Your task to perform on an android device: Show the shopping cart on walmart.com. Add alienware area 51 to the cart on walmart.com, then select checkout. Image 0: 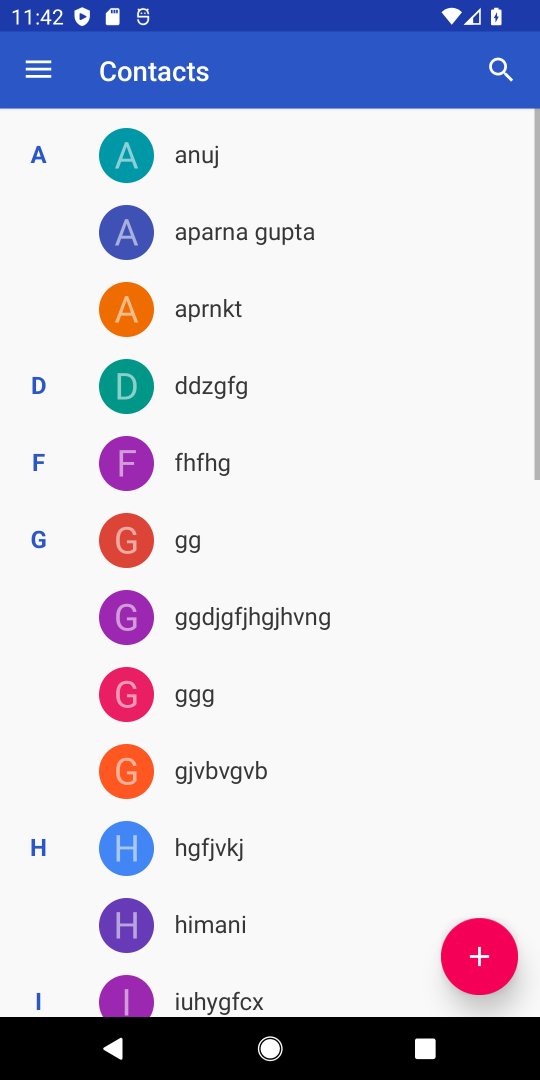
Step 0: press home button
Your task to perform on an android device: Show the shopping cart on walmart.com. Add alienware area 51 to the cart on walmart.com, then select checkout. Image 1: 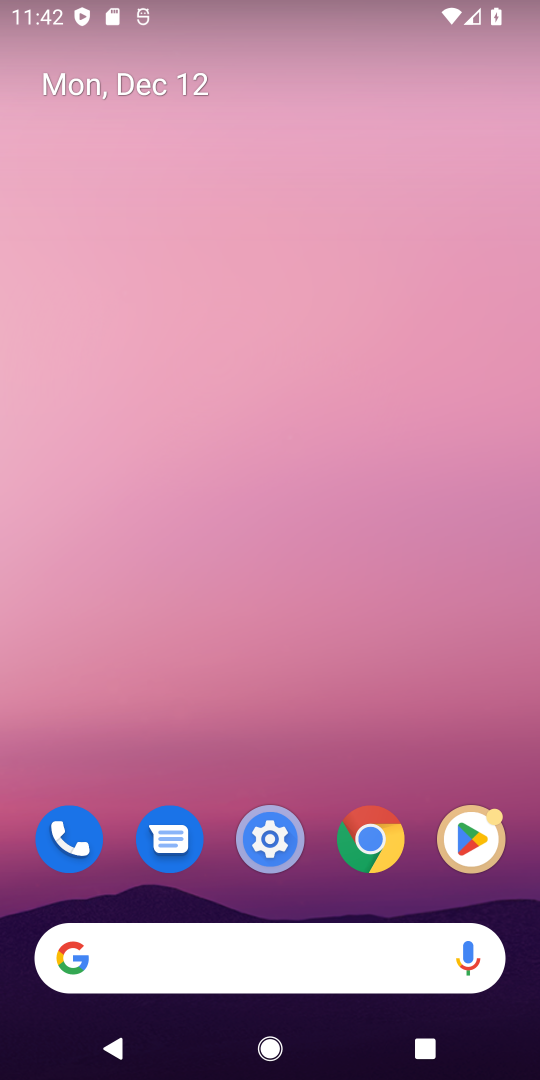
Step 1: click (372, 839)
Your task to perform on an android device: Show the shopping cart on walmart.com. Add alienware area 51 to the cart on walmart.com, then select checkout. Image 2: 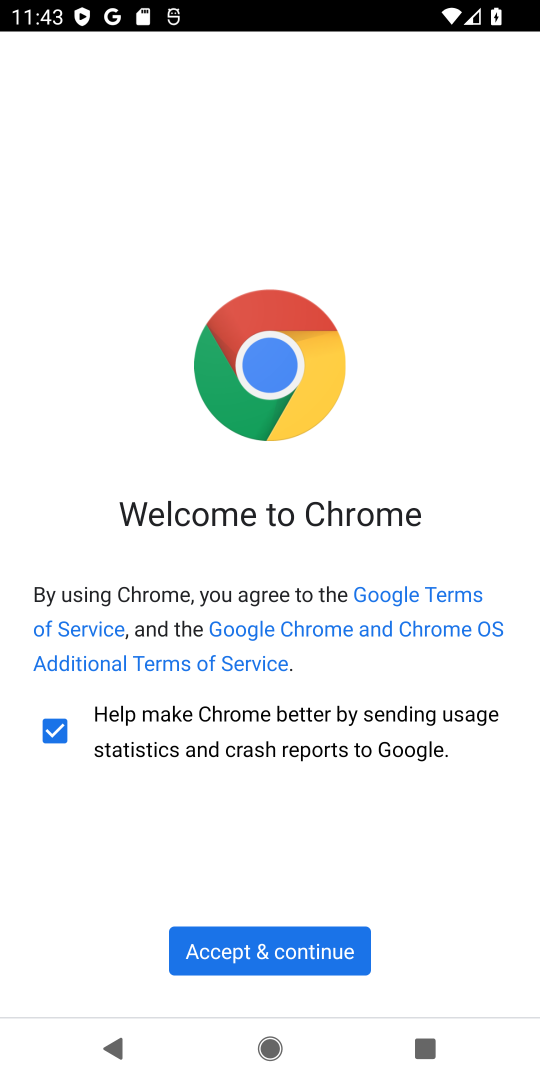
Step 2: click (230, 945)
Your task to perform on an android device: Show the shopping cart on walmart.com. Add alienware area 51 to the cart on walmart.com, then select checkout. Image 3: 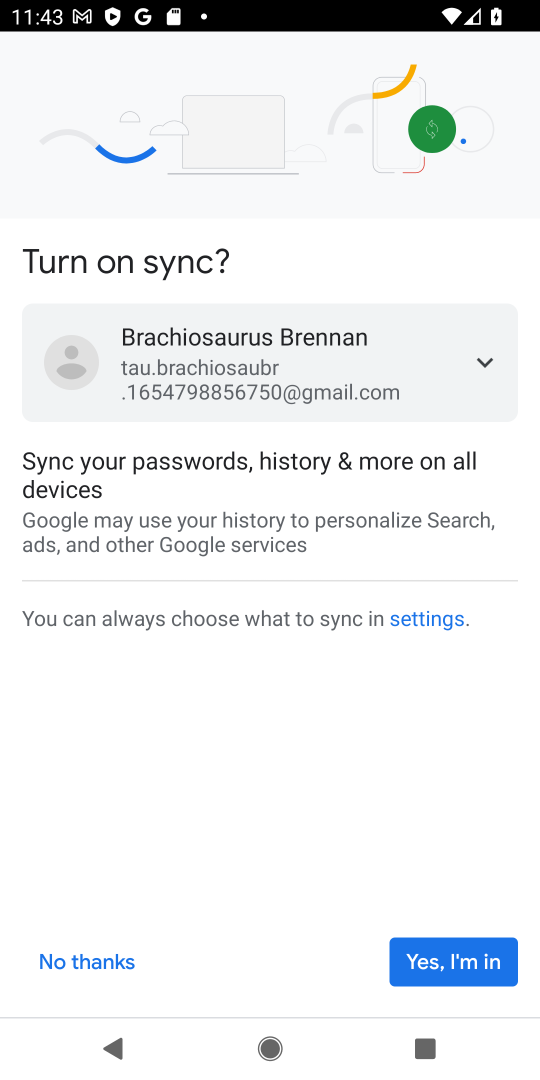
Step 3: click (440, 965)
Your task to perform on an android device: Show the shopping cart on walmart.com. Add alienware area 51 to the cart on walmart.com, then select checkout. Image 4: 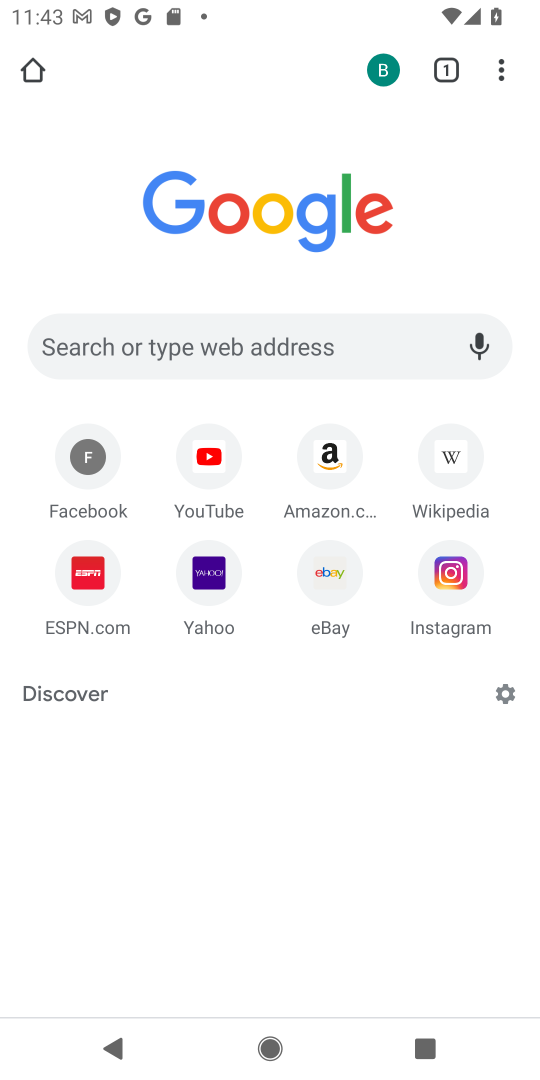
Step 4: click (224, 339)
Your task to perform on an android device: Show the shopping cart on walmart.com. Add alienware area 51 to the cart on walmart.com, then select checkout. Image 5: 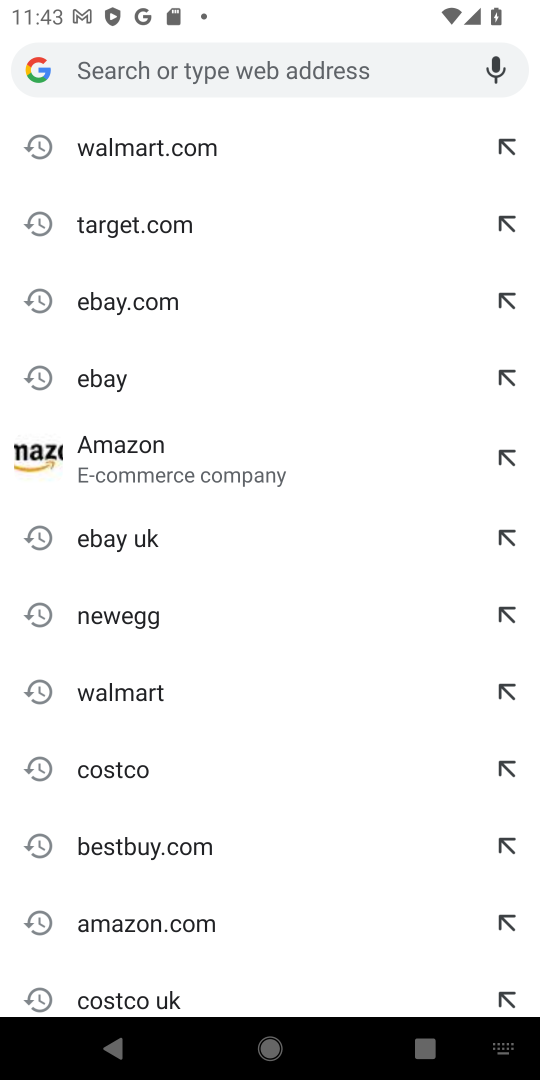
Step 5: type "walmart.com"
Your task to perform on an android device: Show the shopping cart on walmart.com. Add alienware area 51 to the cart on walmart.com, then select checkout. Image 6: 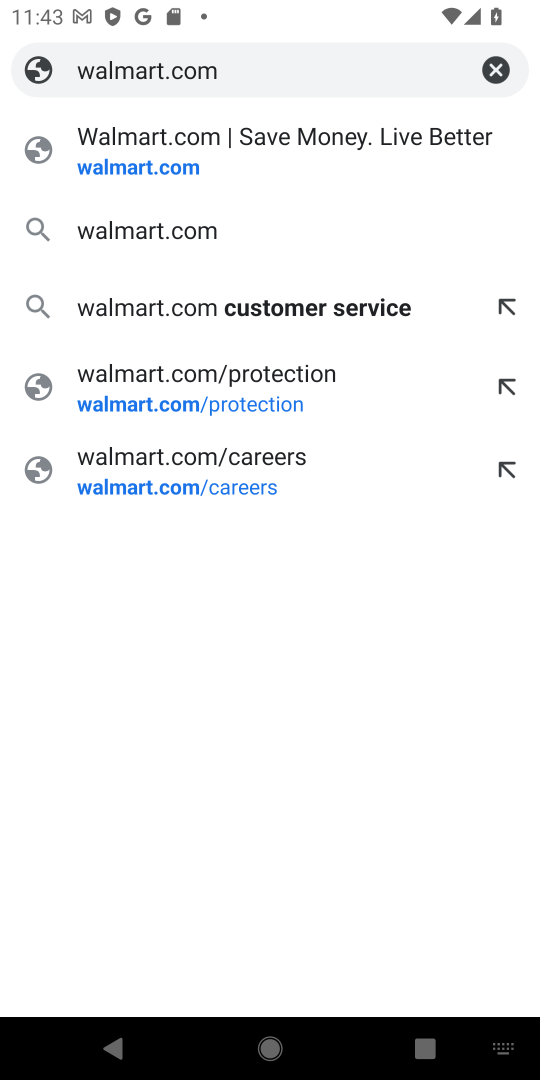
Step 6: click (154, 235)
Your task to perform on an android device: Show the shopping cart on walmart.com. Add alienware area 51 to the cart on walmart.com, then select checkout. Image 7: 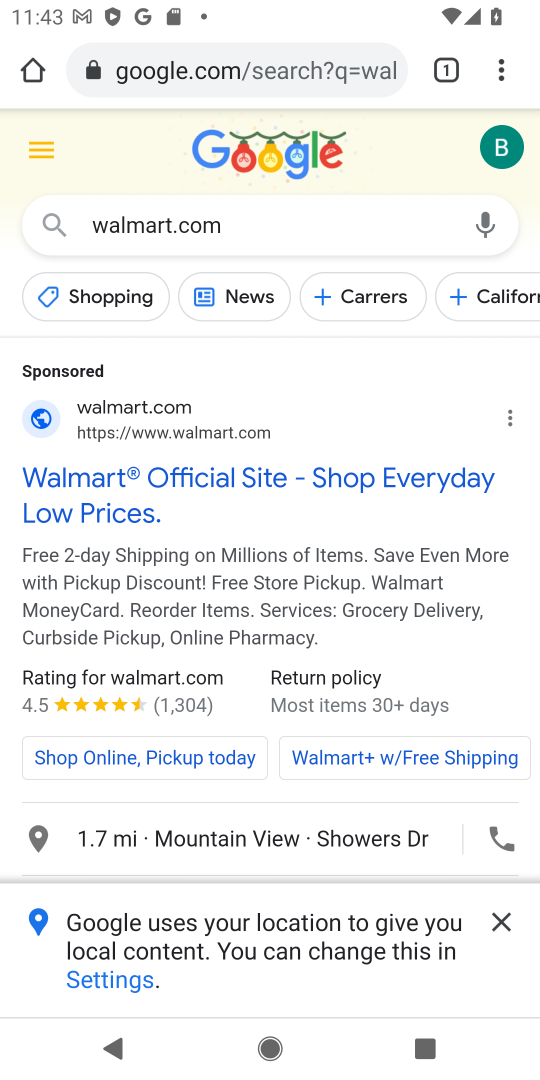
Step 7: drag from (249, 649) to (397, 269)
Your task to perform on an android device: Show the shopping cart on walmart.com. Add alienware area 51 to the cart on walmart.com, then select checkout. Image 8: 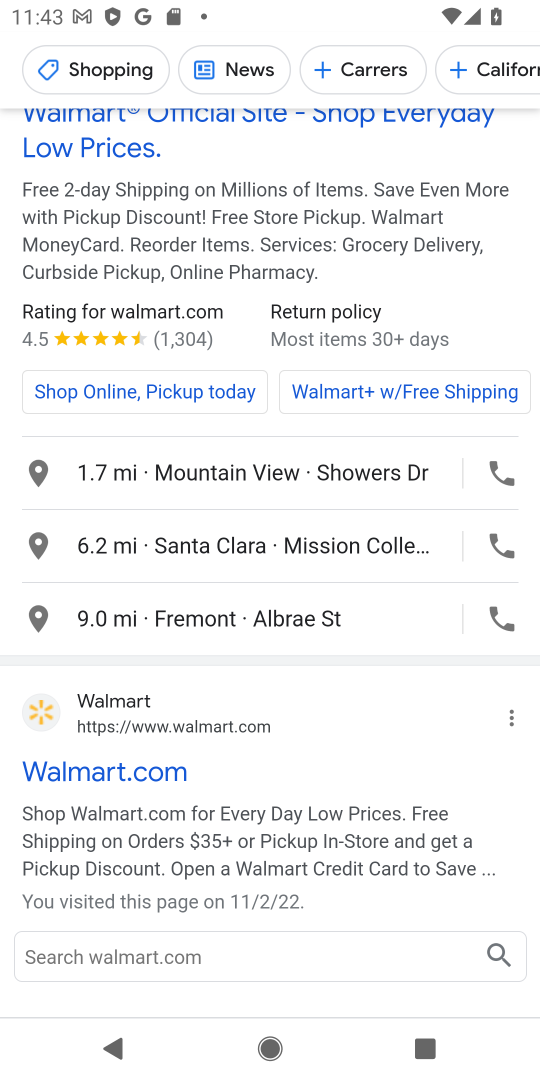
Step 8: click (126, 761)
Your task to perform on an android device: Show the shopping cart on walmart.com. Add alienware area 51 to the cart on walmart.com, then select checkout. Image 9: 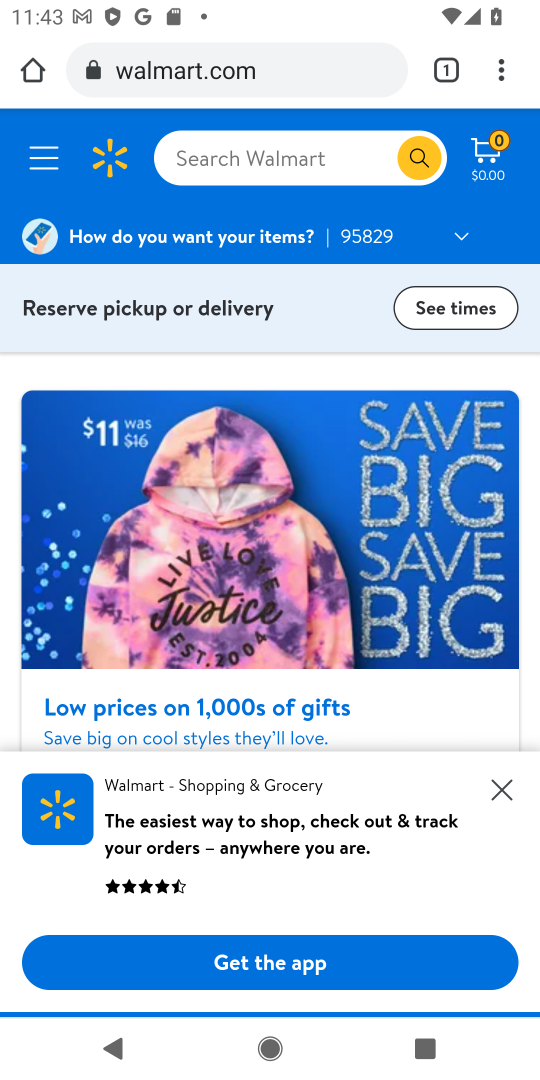
Step 9: click (486, 151)
Your task to perform on an android device: Show the shopping cart on walmart.com. Add alienware area 51 to the cart on walmart.com, then select checkout. Image 10: 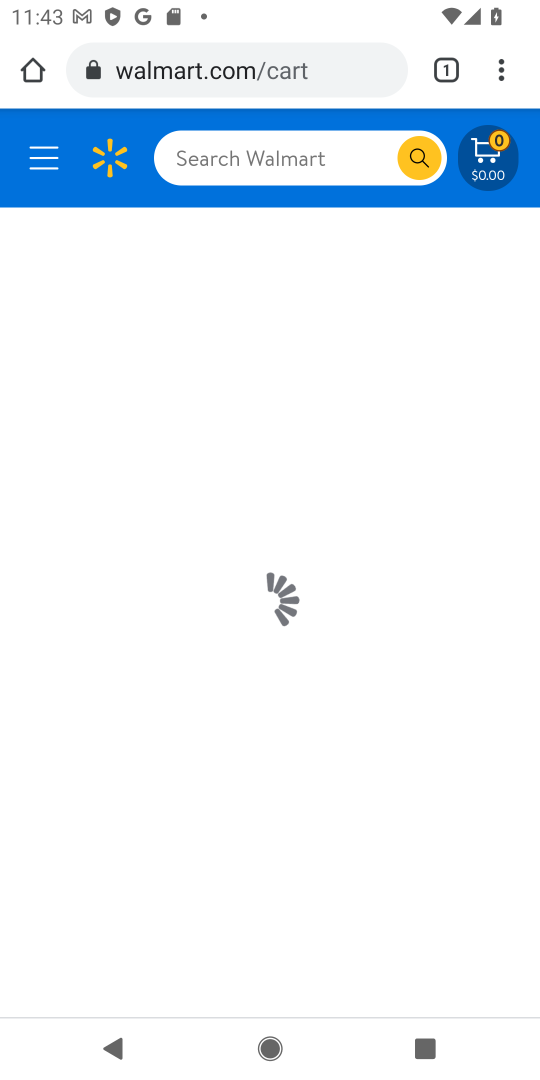
Step 10: click (305, 160)
Your task to perform on an android device: Show the shopping cart on walmart.com. Add alienware area 51 to the cart on walmart.com, then select checkout. Image 11: 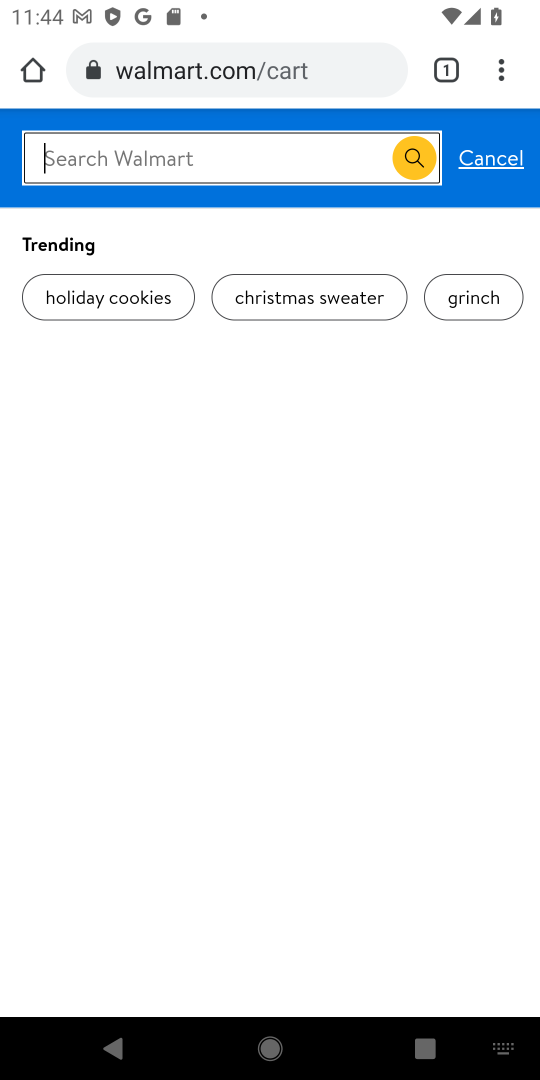
Step 11: type "alienware area 51"
Your task to perform on an android device: Show the shopping cart on walmart.com. Add alienware area 51 to the cart on walmart.com, then select checkout. Image 12: 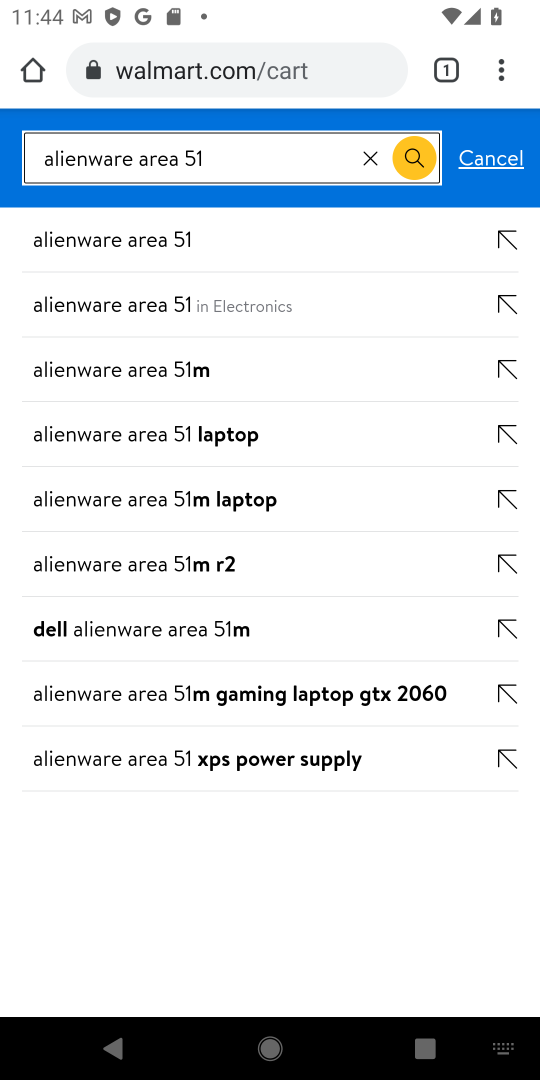
Step 12: click (146, 244)
Your task to perform on an android device: Show the shopping cart on walmart.com. Add alienware area 51 to the cart on walmart.com, then select checkout. Image 13: 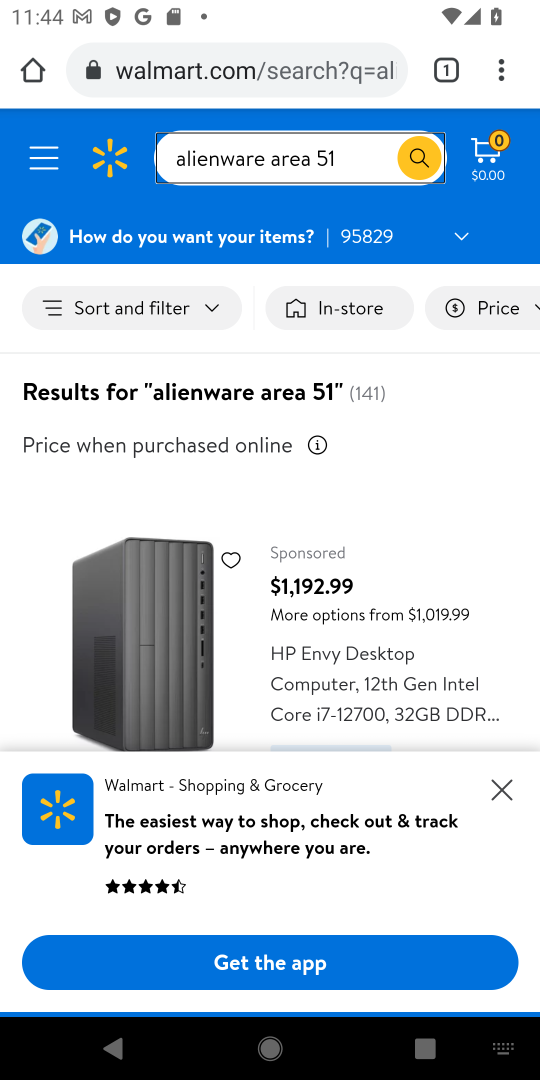
Step 13: click (374, 621)
Your task to perform on an android device: Show the shopping cart on walmart.com. Add alienware area 51 to the cart on walmart.com, then select checkout. Image 14: 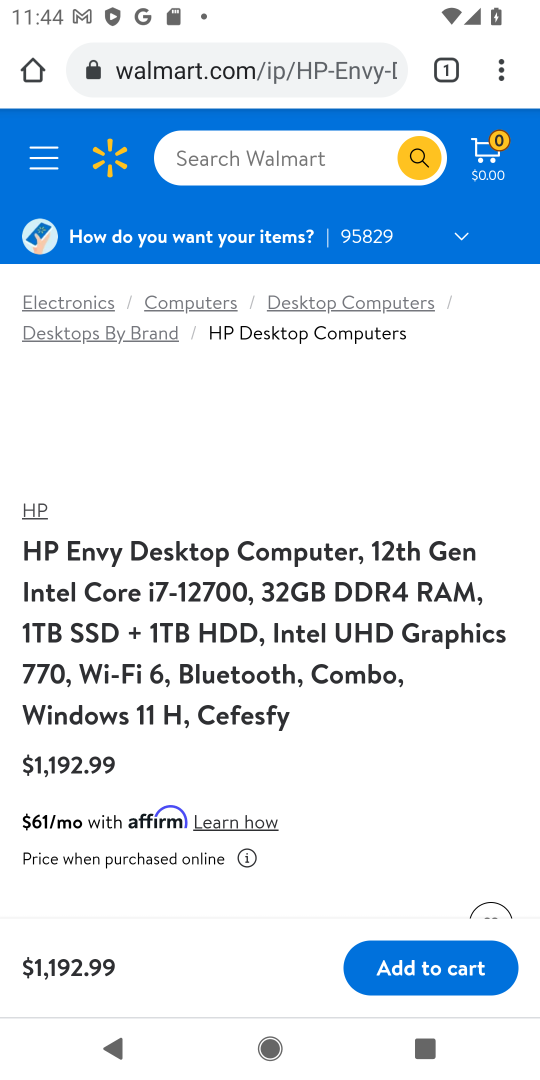
Step 14: click (418, 972)
Your task to perform on an android device: Show the shopping cart on walmart.com. Add alienware area 51 to the cart on walmart.com, then select checkout. Image 15: 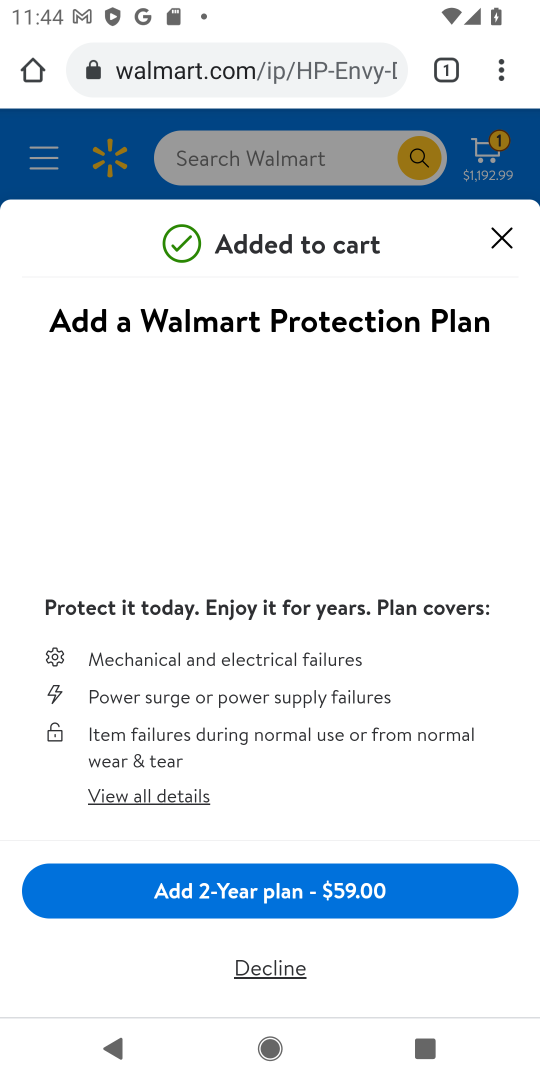
Step 15: click (278, 973)
Your task to perform on an android device: Show the shopping cart on walmart.com. Add alienware area 51 to the cart on walmart.com, then select checkout. Image 16: 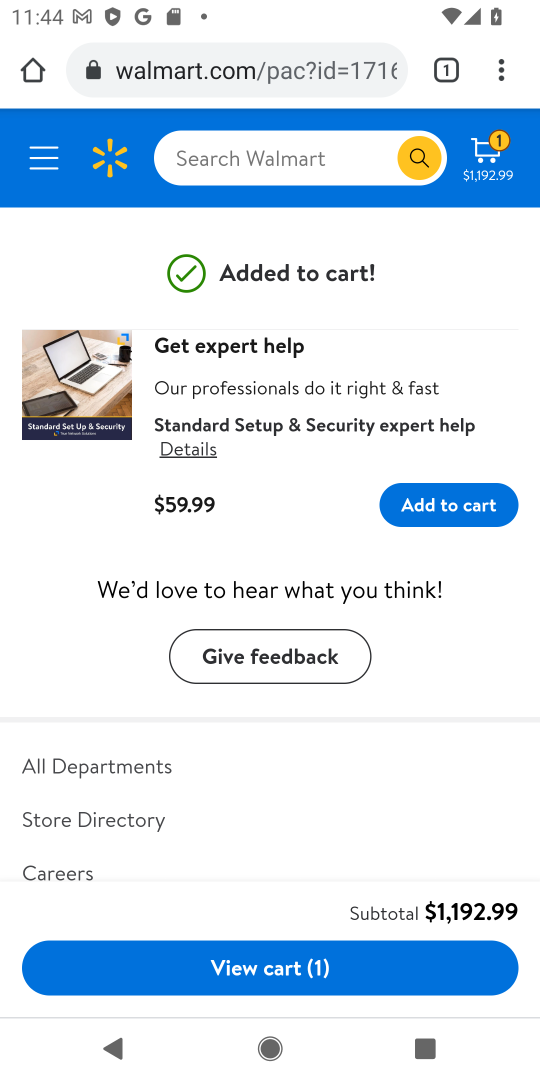
Step 16: click (299, 983)
Your task to perform on an android device: Show the shopping cart on walmart.com. Add alienware area 51 to the cart on walmart.com, then select checkout. Image 17: 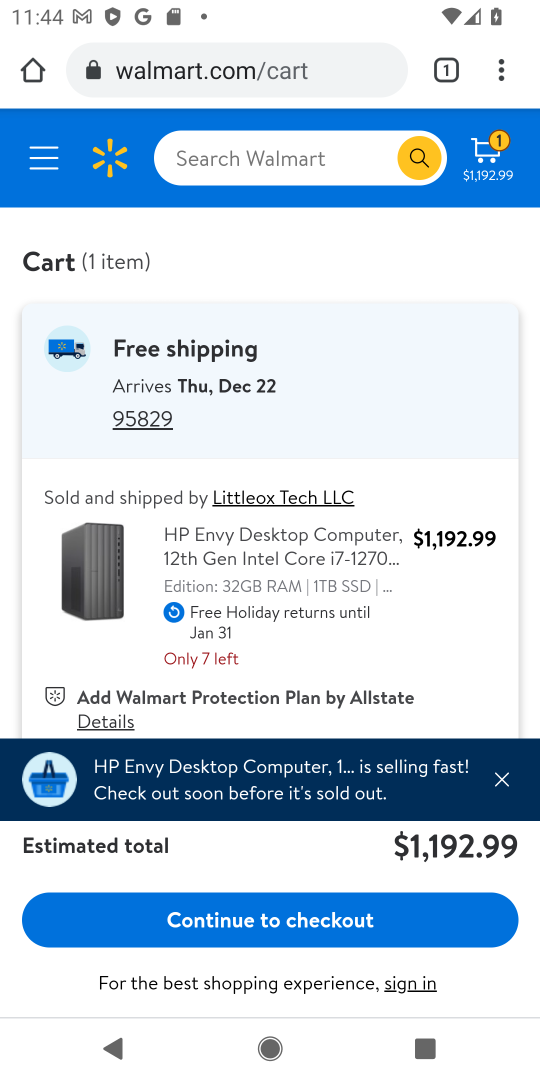
Step 17: click (296, 919)
Your task to perform on an android device: Show the shopping cart on walmart.com. Add alienware area 51 to the cart on walmart.com, then select checkout. Image 18: 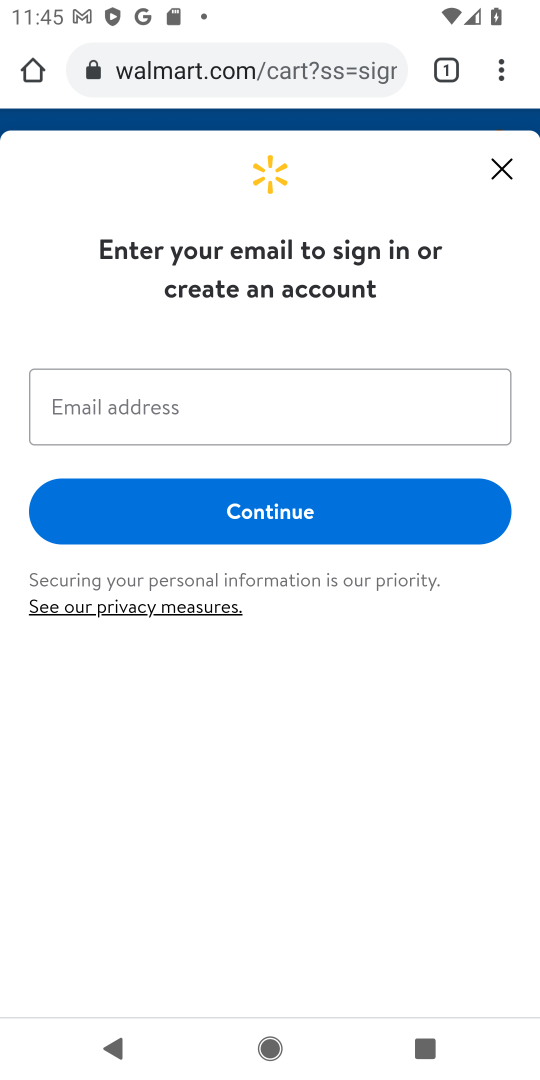
Step 18: task complete